Your task to perform on an android device: turn on the 24-hour format for clock Image 0: 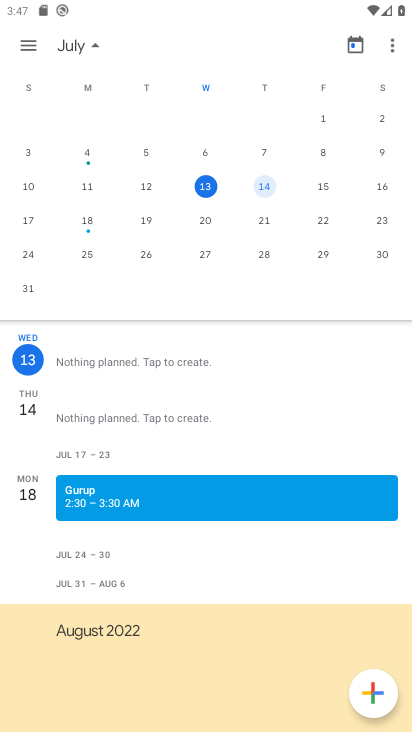
Step 0: press home button
Your task to perform on an android device: turn on the 24-hour format for clock Image 1: 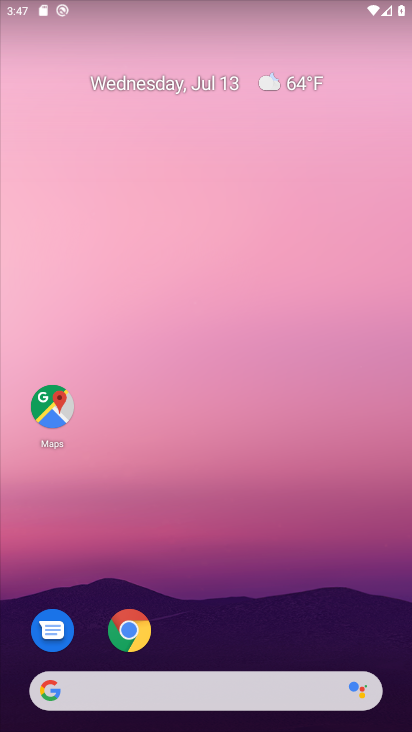
Step 1: drag from (221, 616) to (233, 134)
Your task to perform on an android device: turn on the 24-hour format for clock Image 2: 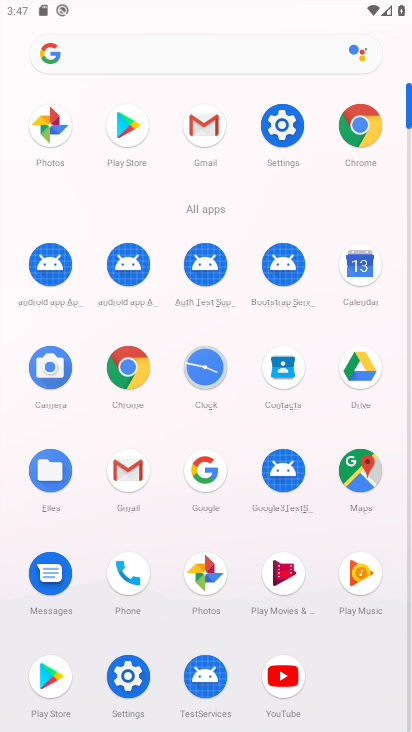
Step 2: click (218, 360)
Your task to perform on an android device: turn on the 24-hour format for clock Image 3: 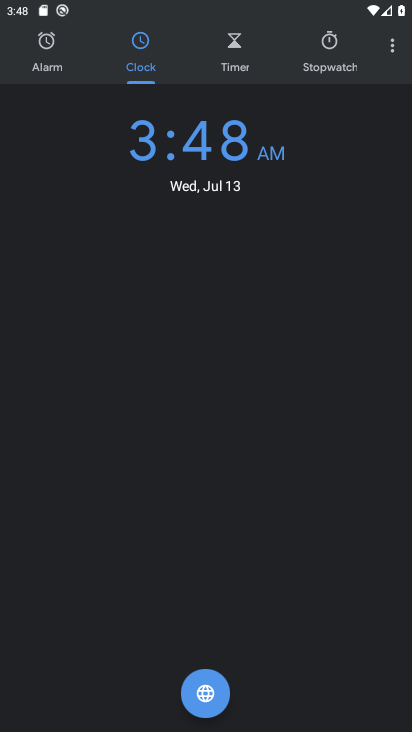
Step 3: click (404, 39)
Your task to perform on an android device: turn on the 24-hour format for clock Image 4: 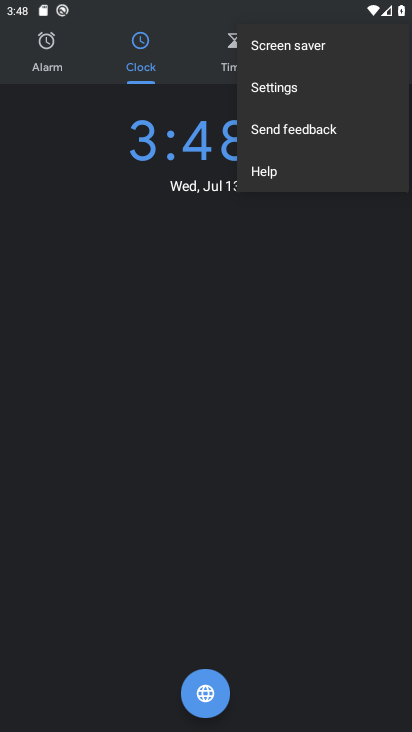
Step 4: click (296, 97)
Your task to perform on an android device: turn on the 24-hour format for clock Image 5: 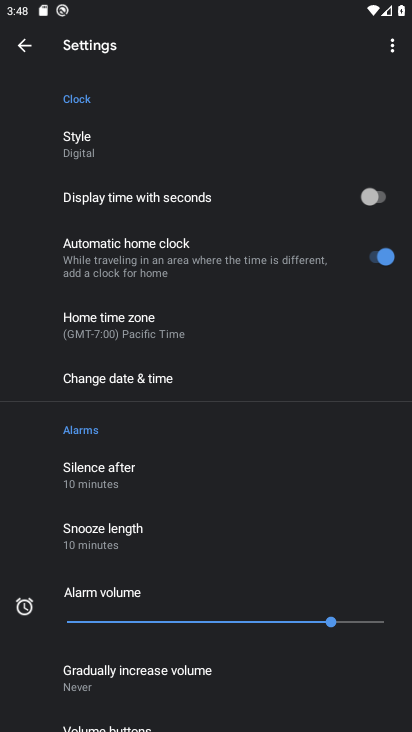
Step 5: click (197, 375)
Your task to perform on an android device: turn on the 24-hour format for clock Image 6: 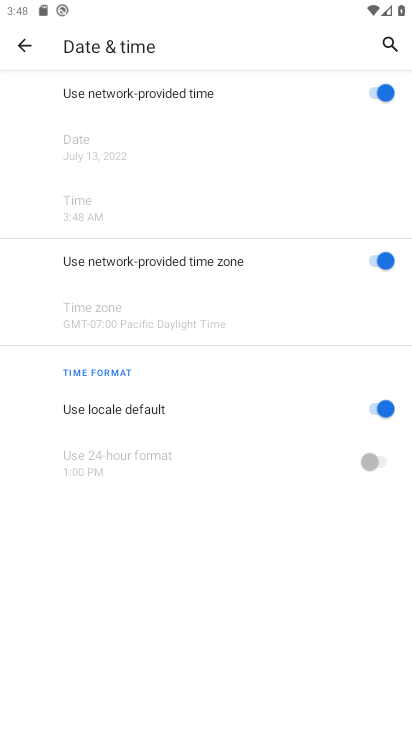
Step 6: click (376, 414)
Your task to perform on an android device: turn on the 24-hour format for clock Image 7: 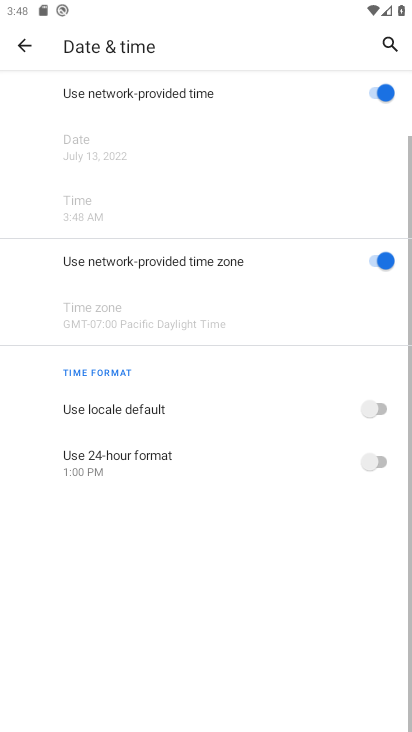
Step 7: click (380, 465)
Your task to perform on an android device: turn on the 24-hour format for clock Image 8: 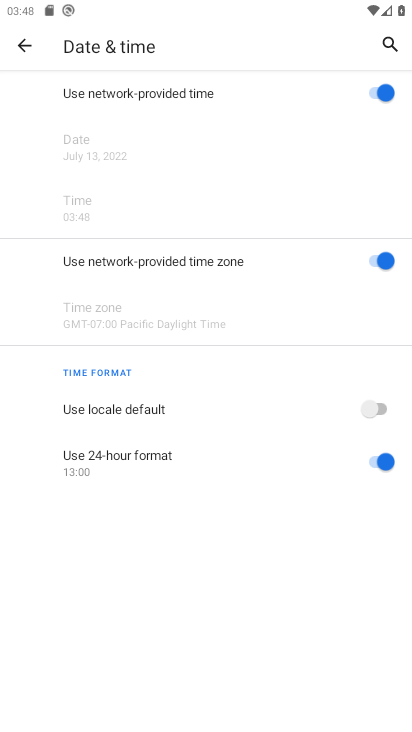
Step 8: task complete